Your task to perform on an android device: toggle wifi Image 0: 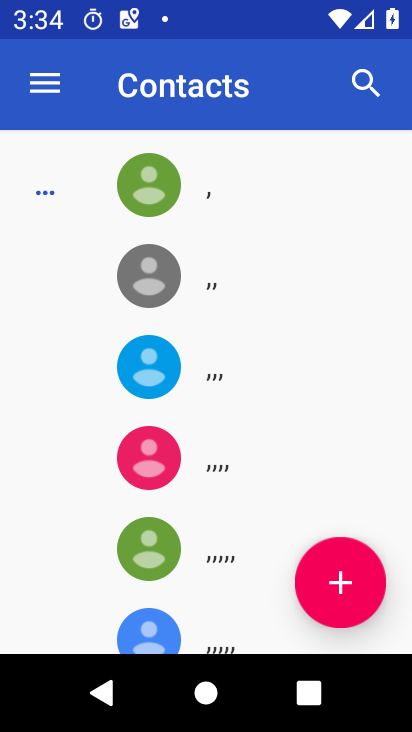
Step 0: press home button
Your task to perform on an android device: toggle wifi Image 1: 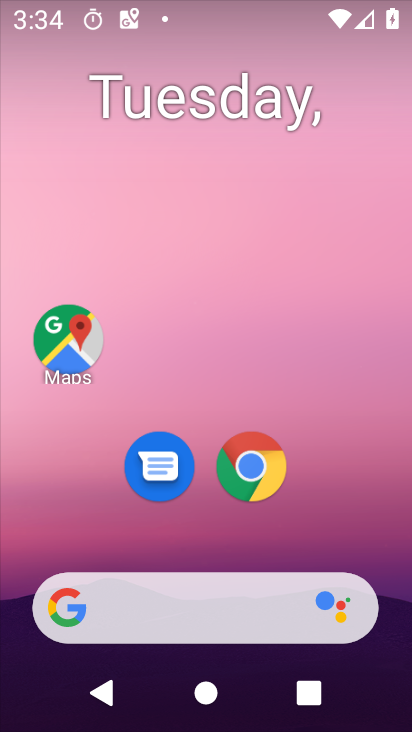
Step 1: drag from (369, 525) to (372, 173)
Your task to perform on an android device: toggle wifi Image 2: 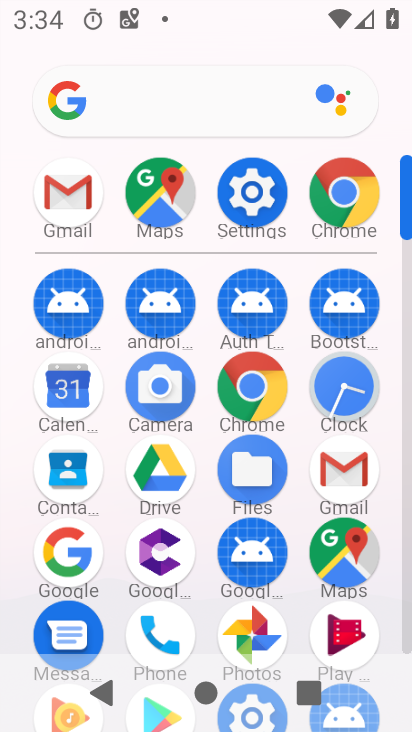
Step 2: click (254, 222)
Your task to perform on an android device: toggle wifi Image 3: 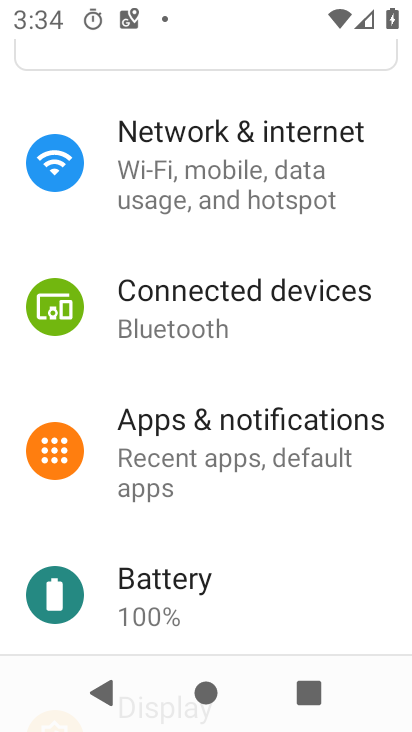
Step 3: drag from (368, 214) to (379, 295)
Your task to perform on an android device: toggle wifi Image 4: 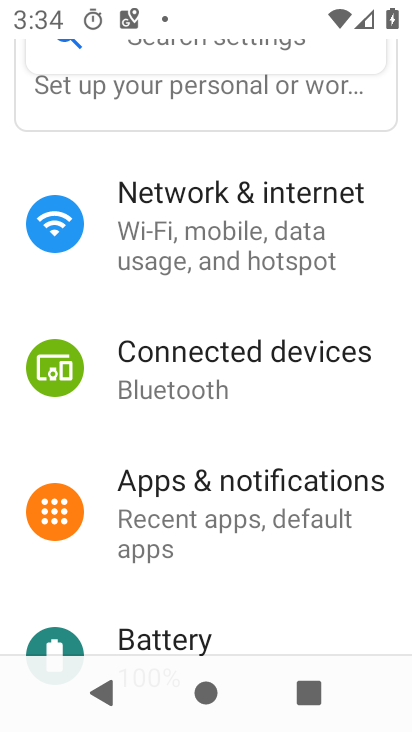
Step 4: drag from (383, 197) to (373, 341)
Your task to perform on an android device: toggle wifi Image 5: 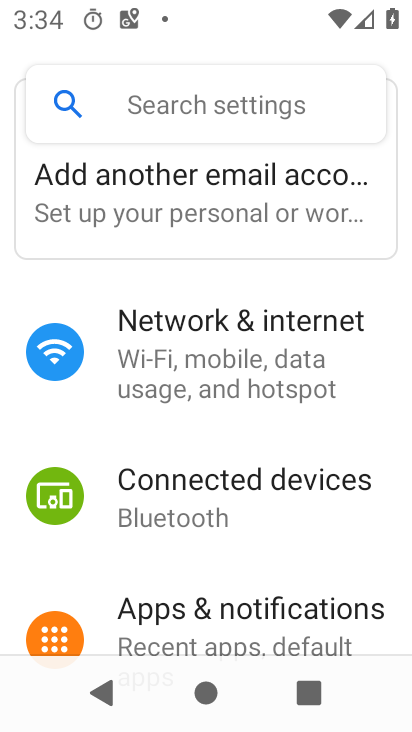
Step 5: drag from (351, 178) to (354, 280)
Your task to perform on an android device: toggle wifi Image 6: 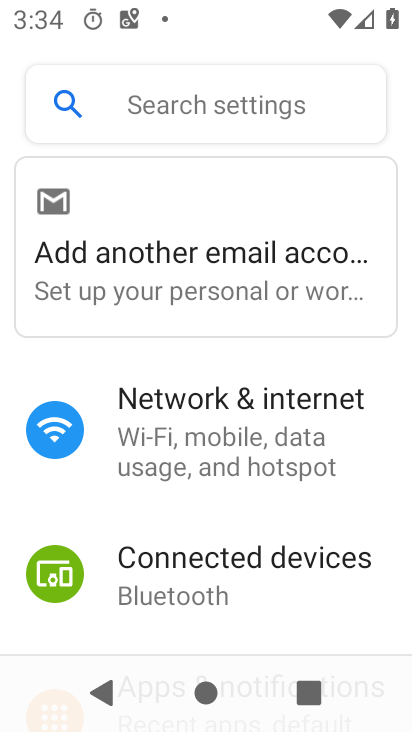
Step 6: click (274, 419)
Your task to perform on an android device: toggle wifi Image 7: 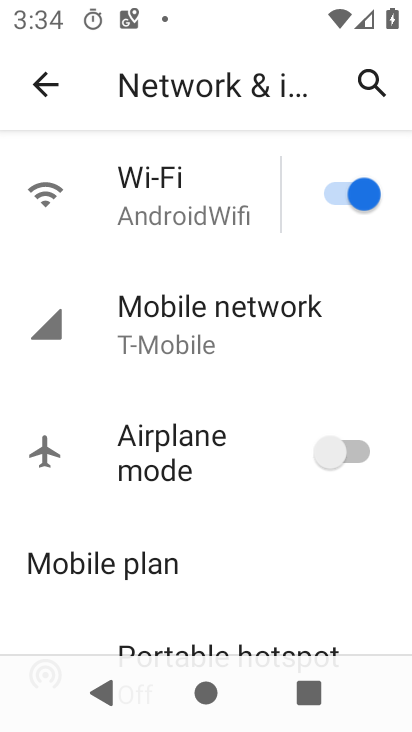
Step 7: click (340, 197)
Your task to perform on an android device: toggle wifi Image 8: 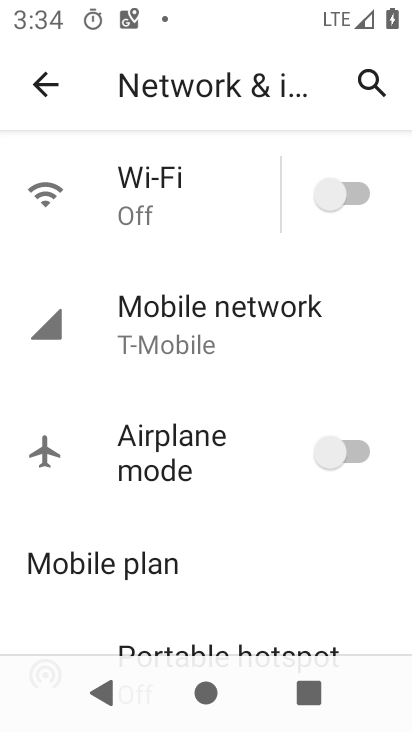
Step 8: task complete